Your task to perform on an android device: Open Youtube and go to "Your channel" Image 0: 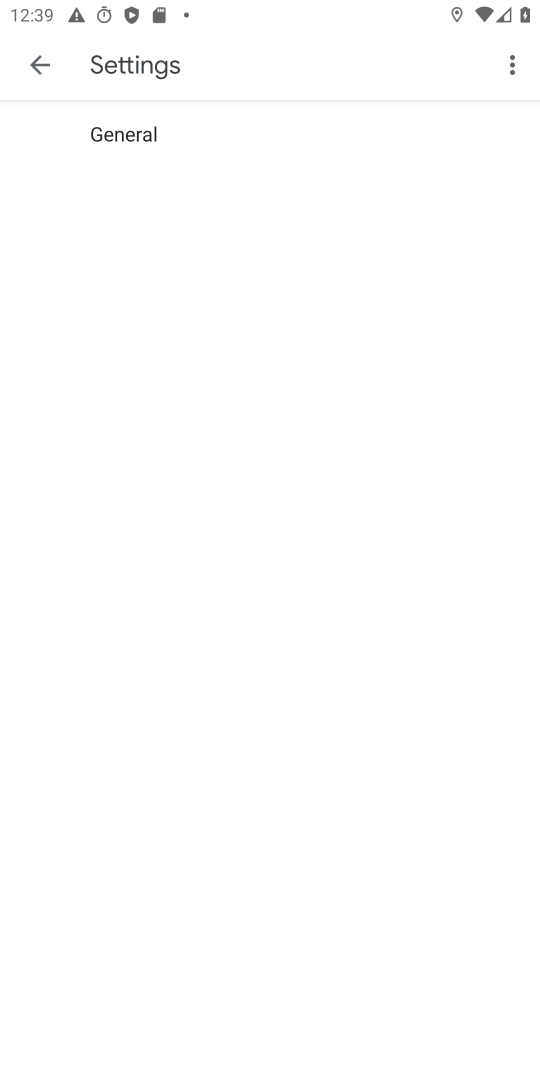
Step 0: press home button
Your task to perform on an android device: Open Youtube and go to "Your channel" Image 1: 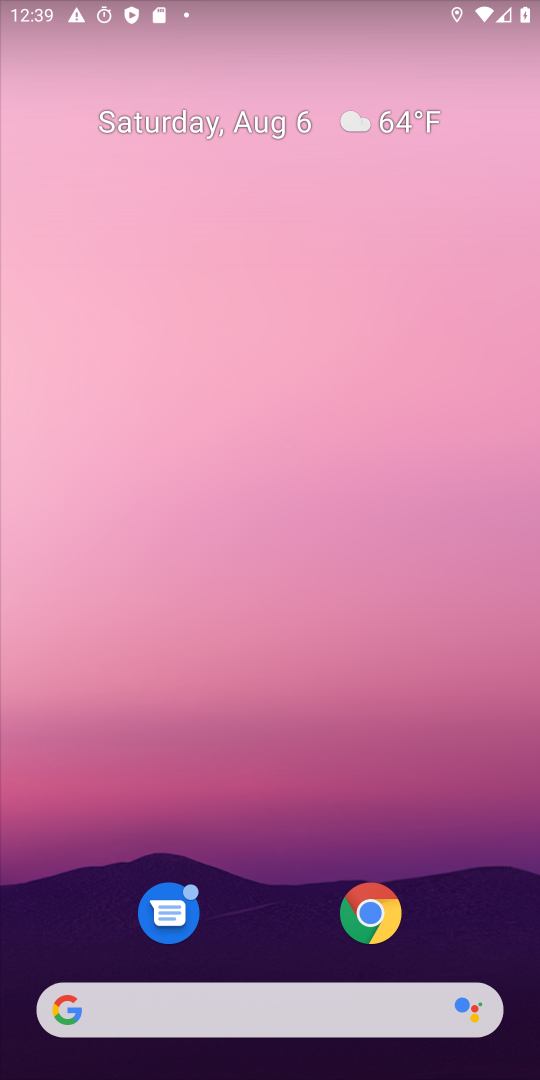
Step 1: drag from (466, 900) to (452, 285)
Your task to perform on an android device: Open Youtube and go to "Your channel" Image 2: 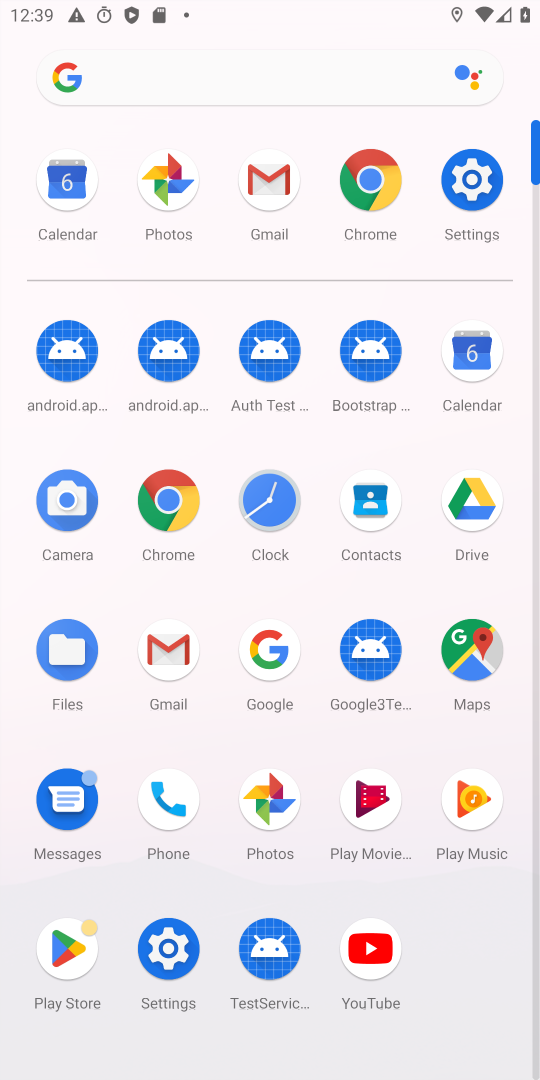
Step 2: click (360, 954)
Your task to perform on an android device: Open Youtube and go to "Your channel" Image 3: 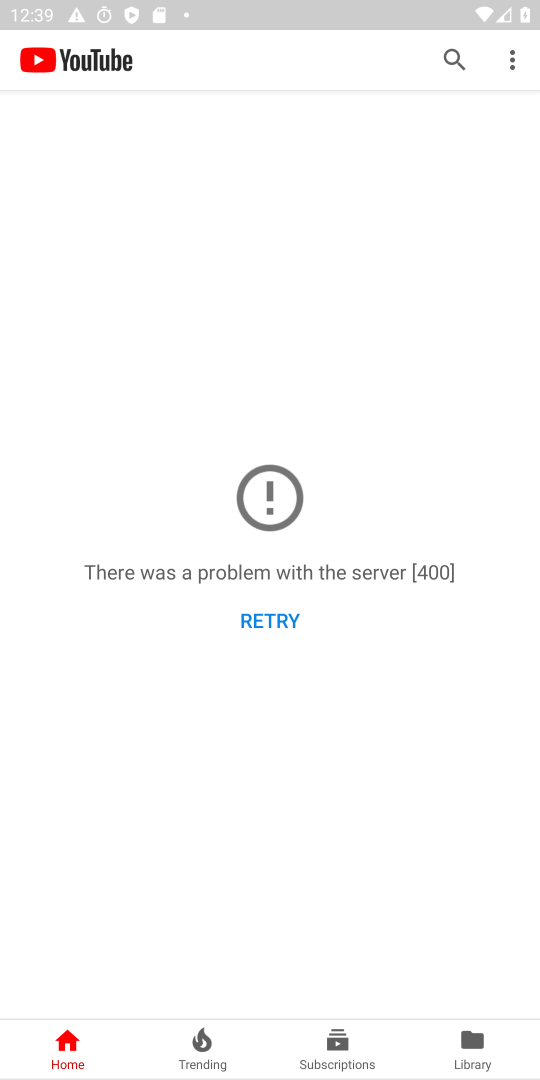
Step 3: click (510, 57)
Your task to perform on an android device: Open Youtube and go to "Your channel" Image 4: 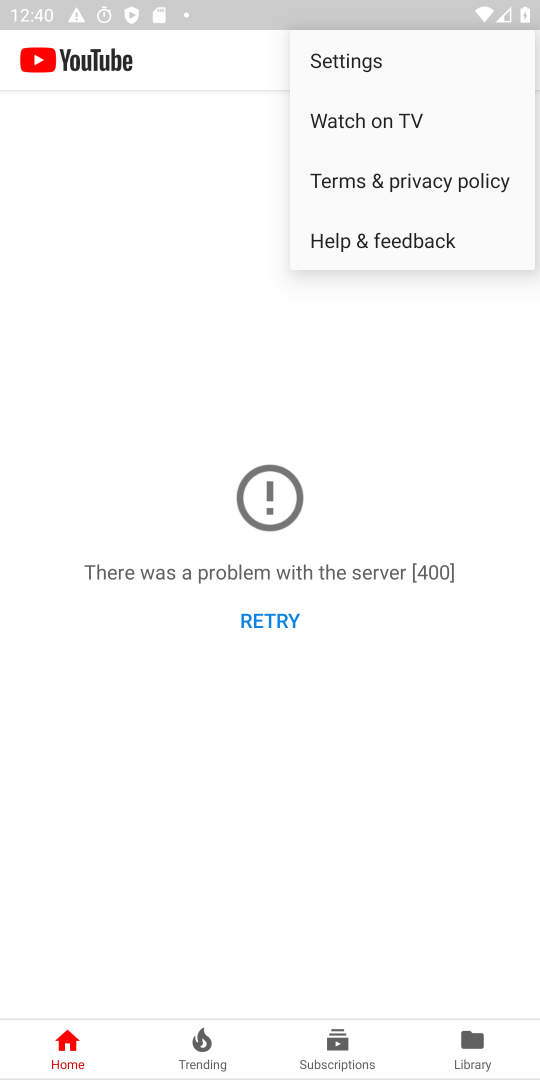
Step 4: task complete